Your task to perform on an android device: change your default location settings in chrome Image 0: 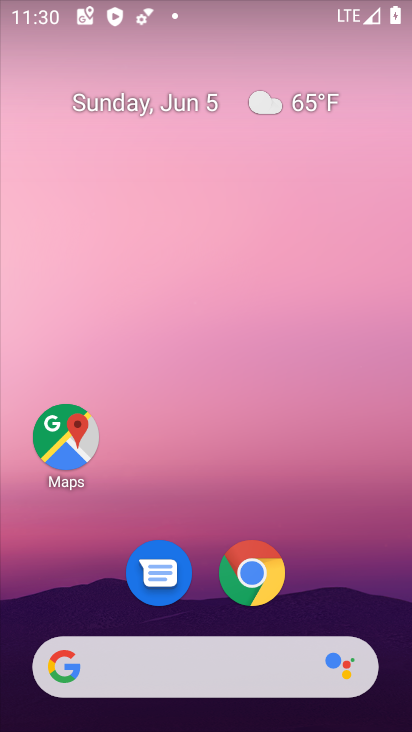
Step 0: drag from (231, 508) to (295, 9)
Your task to perform on an android device: change your default location settings in chrome Image 1: 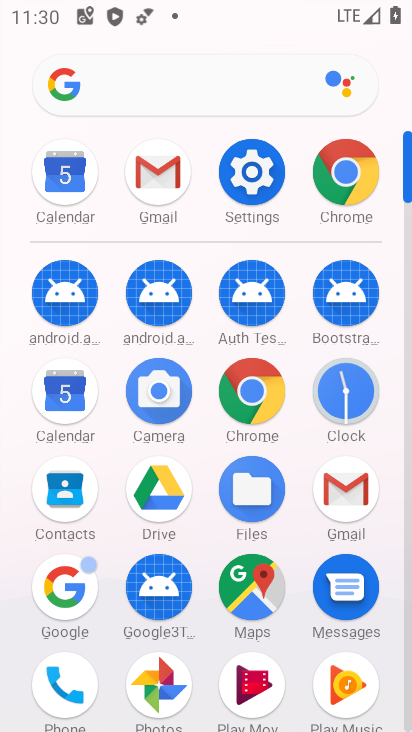
Step 1: click (259, 389)
Your task to perform on an android device: change your default location settings in chrome Image 2: 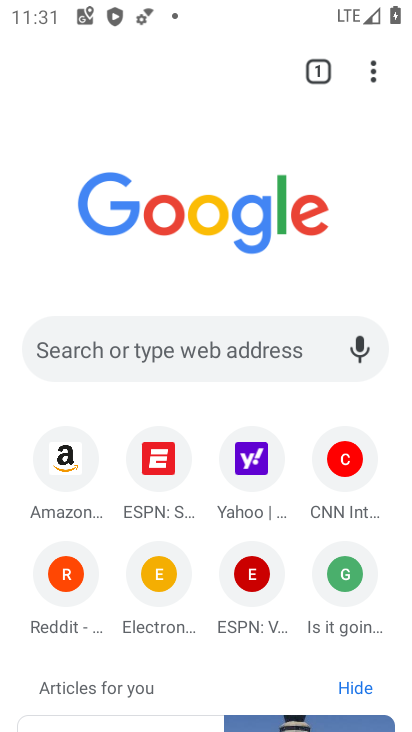
Step 2: click (372, 84)
Your task to perform on an android device: change your default location settings in chrome Image 3: 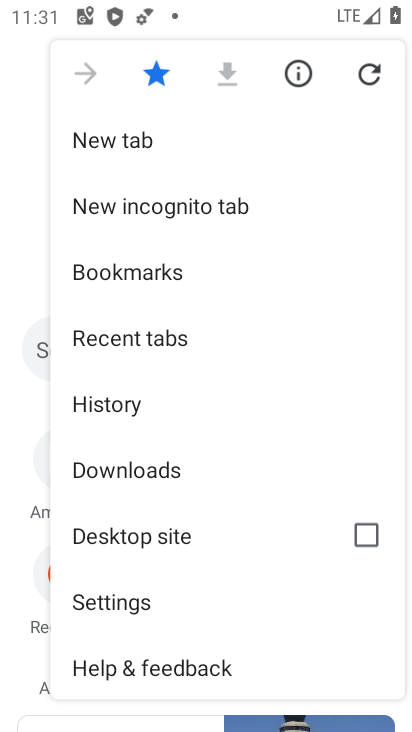
Step 3: drag from (190, 605) to (199, 351)
Your task to perform on an android device: change your default location settings in chrome Image 4: 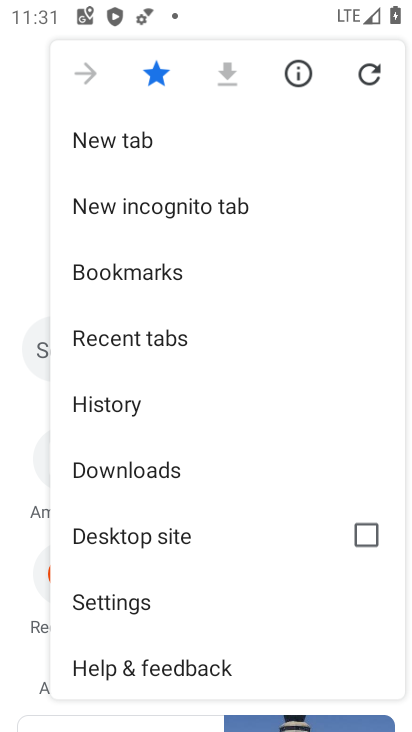
Step 4: click (166, 607)
Your task to perform on an android device: change your default location settings in chrome Image 5: 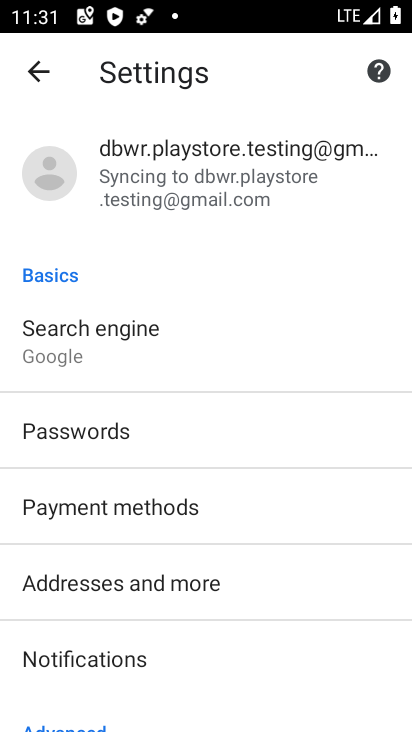
Step 5: drag from (208, 663) to (268, 236)
Your task to perform on an android device: change your default location settings in chrome Image 6: 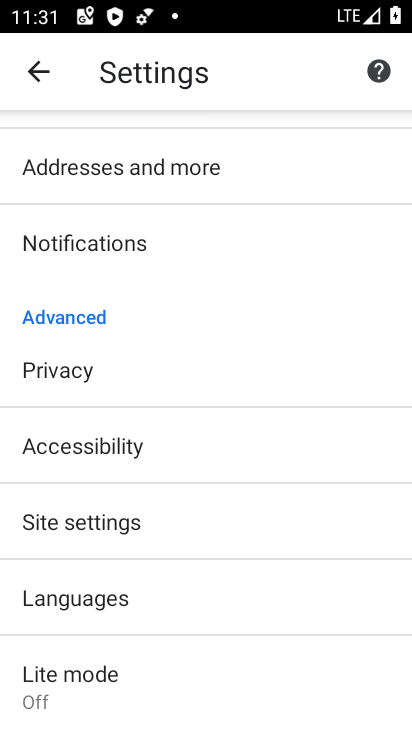
Step 6: click (162, 528)
Your task to perform on an android device: change your default location settings in chrome Image 7: 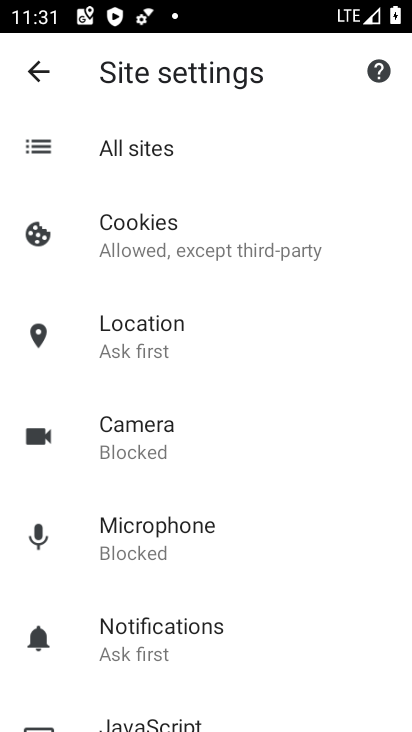
Step 7: drag from (232, 602) to (231, 304)
Your task to perform on an android device: change your default location settings in chrome Image 8: 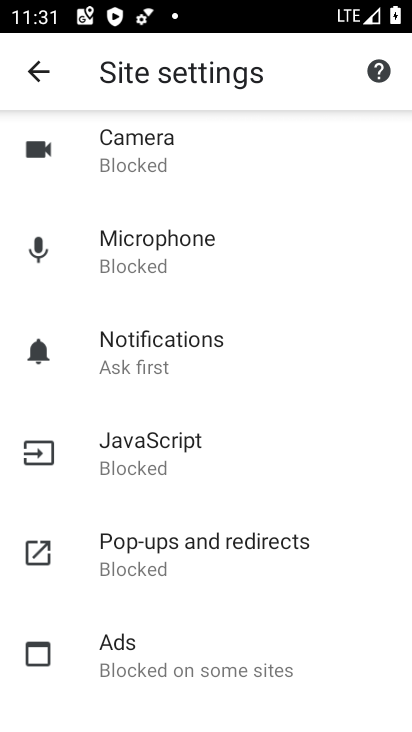
Step 8: drag from (238, 263) to (250, 618)
Your task to perform on an android device: change your default location settings in chrome Image 9: 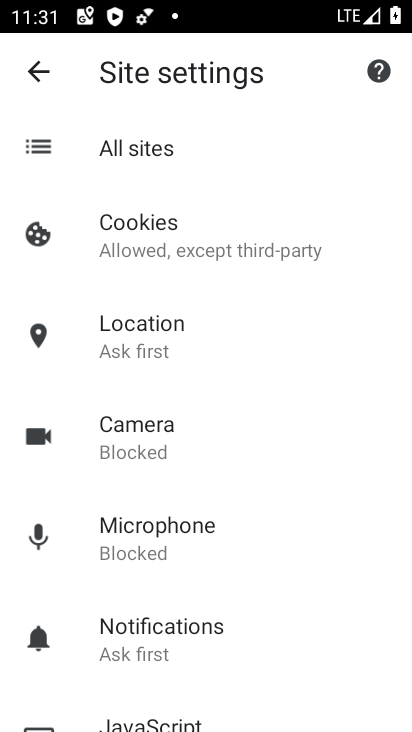
Step 9: click (199, 349)
Your task to perform on an android device: change your default location settings in chrome Image 10: 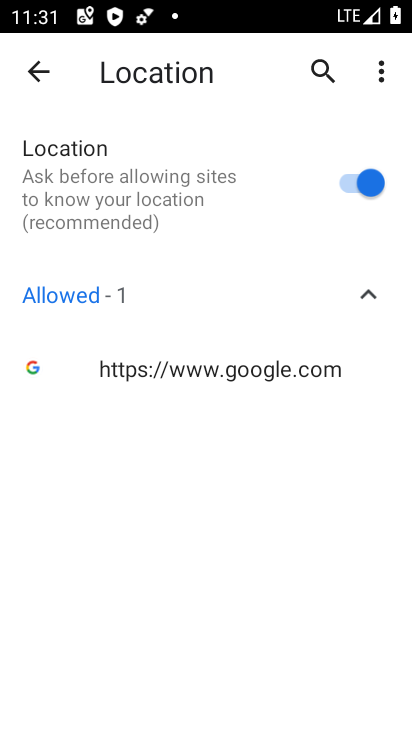
Step 10: click (374, 185)
Your task to perform on an android device: change your default location settings in chrome Image 11: 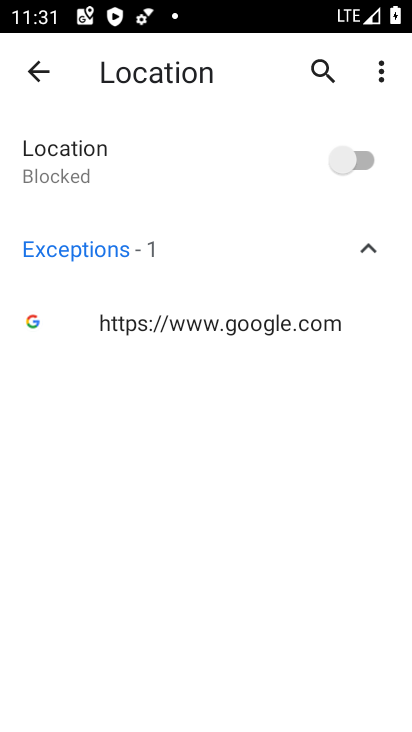
Step 11: task complete